Your task to perform on an android device: add a contact in the contacts app Image 0: 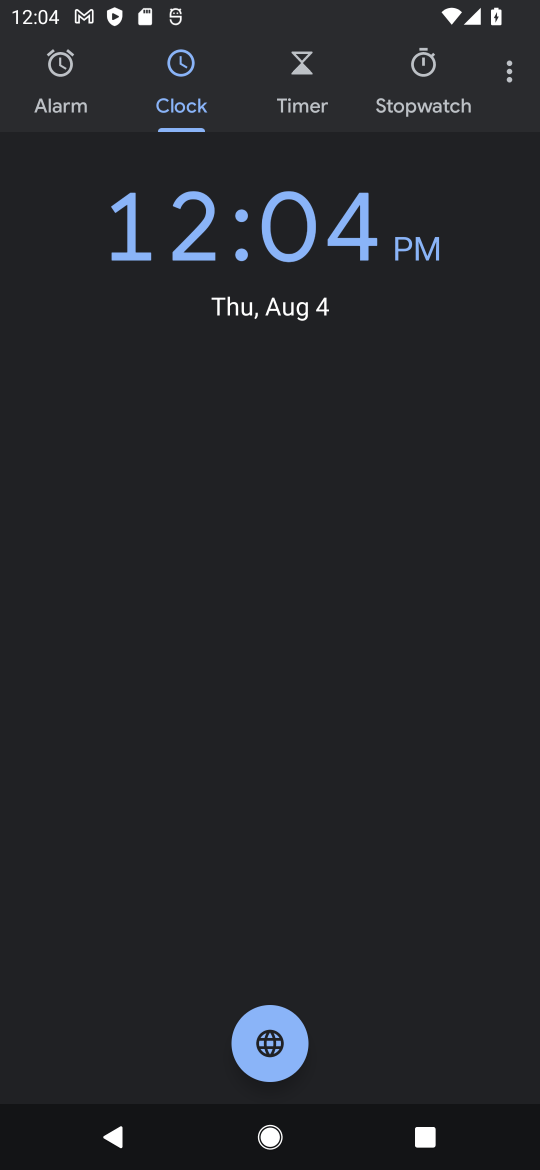
Step 0: press home button
Your task to perform on an android device: add a contact in the contacts app Image 1: 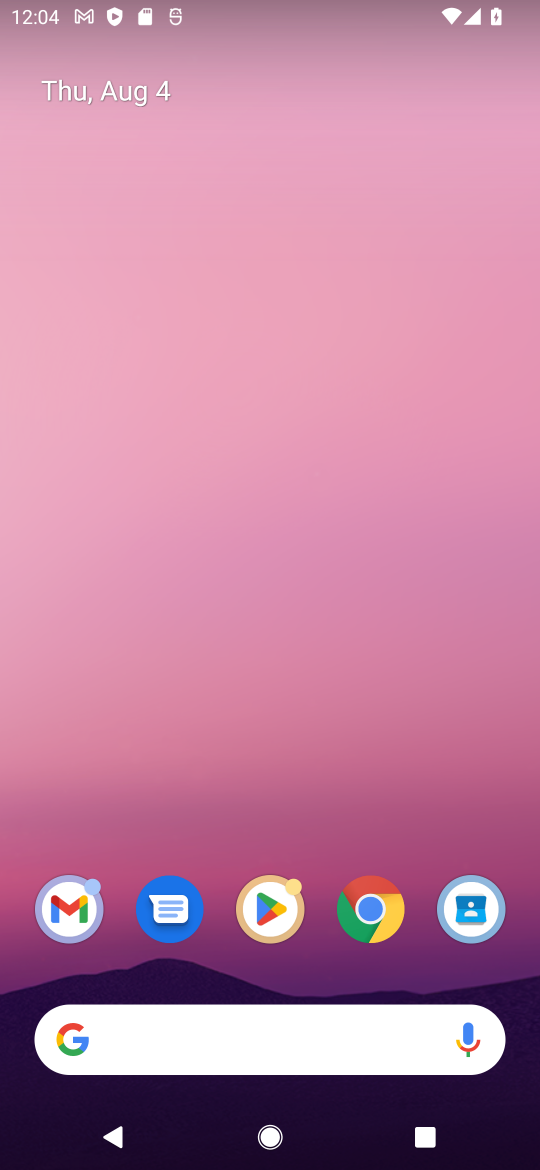
Step 1: click (488, 910)
Your task to perform on an android device: add a contact in the contacts app Image 2: 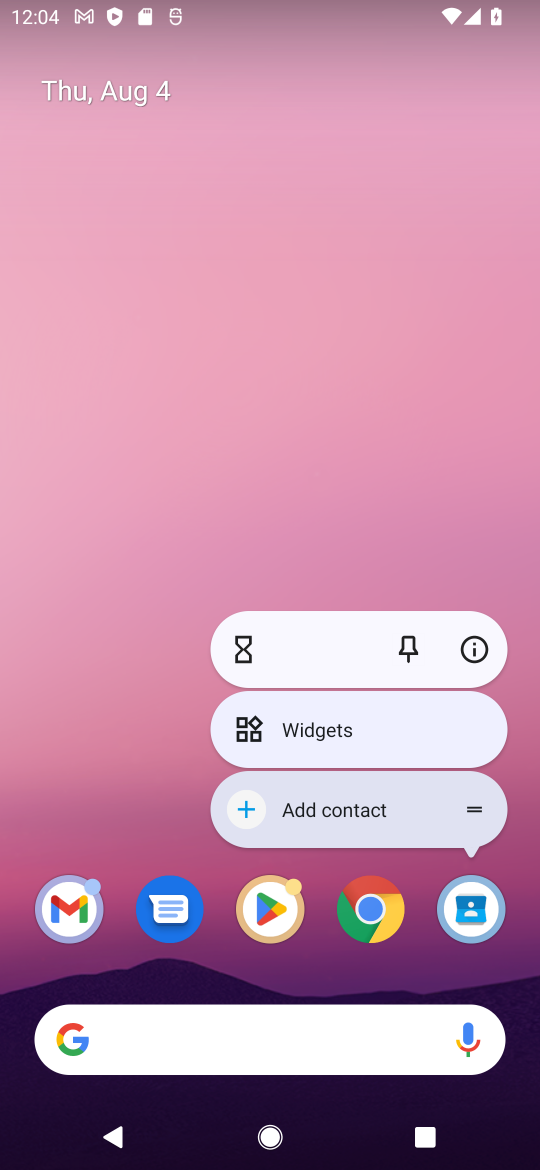
Step 2: click (488, 904)
Your task to perform on an android device: add a contact in the contacts app Image 3: 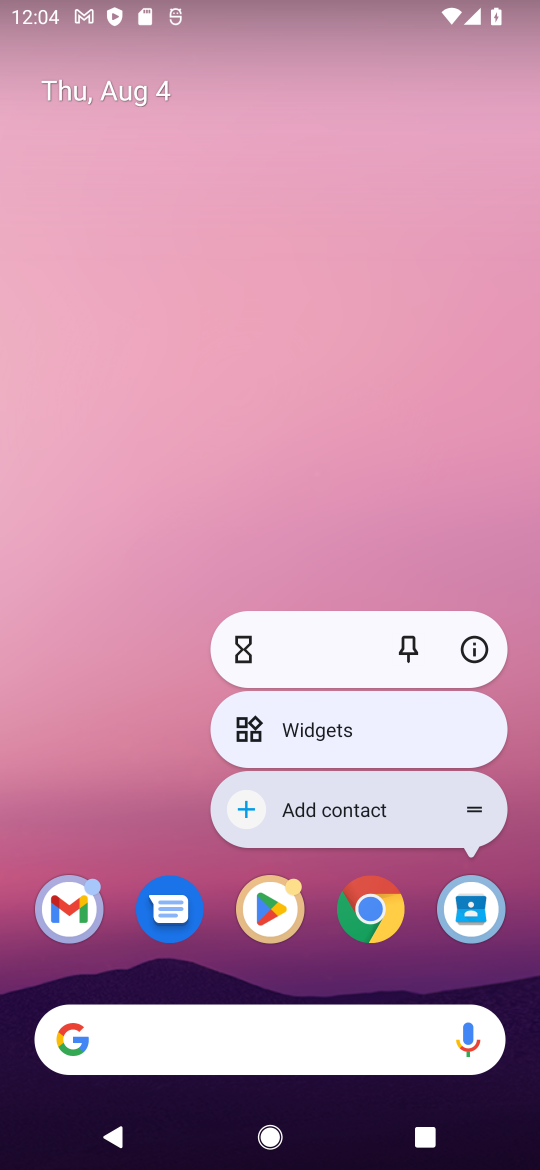
Step 3: click (488, 904)
Your task to perform on an android device: add a contact in the contacts app Image 4: 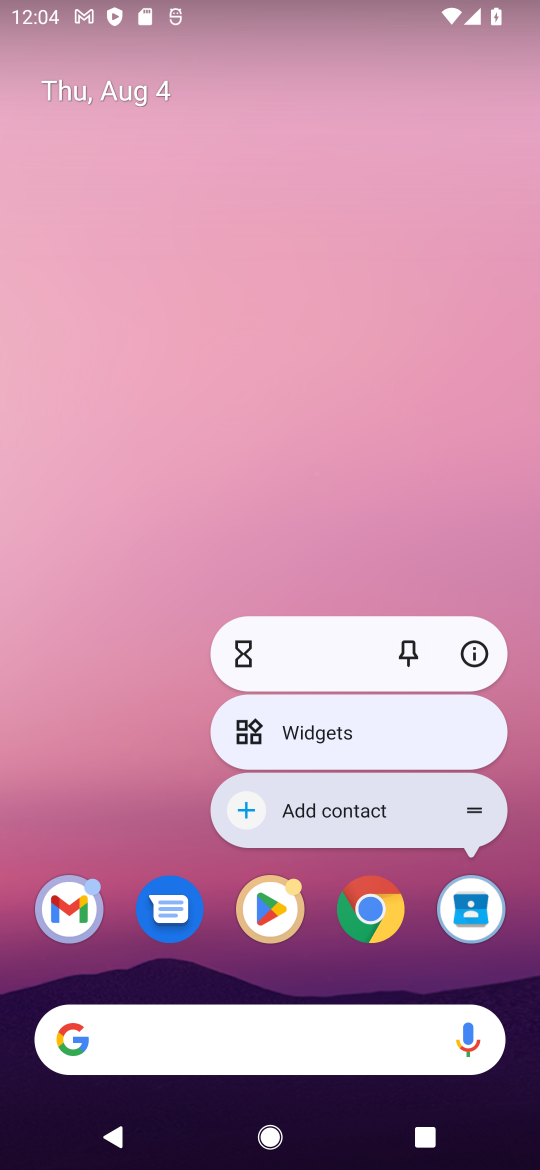
Step 4: click (488, 904)
Your task to perform on an android device: add a contact in the contacts app Image 5: 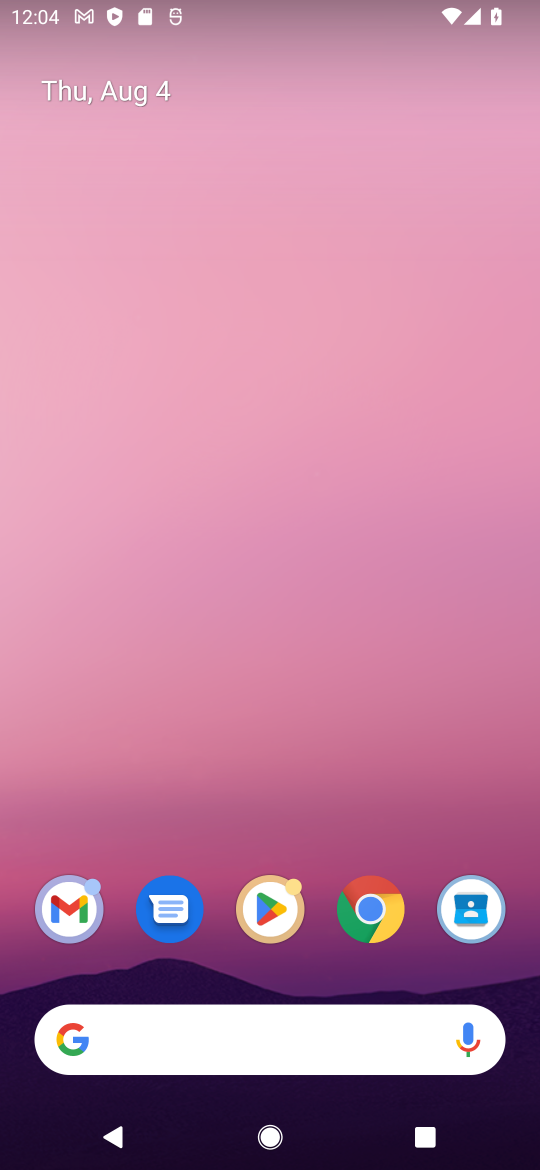
Step 5: click (488, 904)
Your task to perform on an android device: add a contact in the contacts app Image 6: 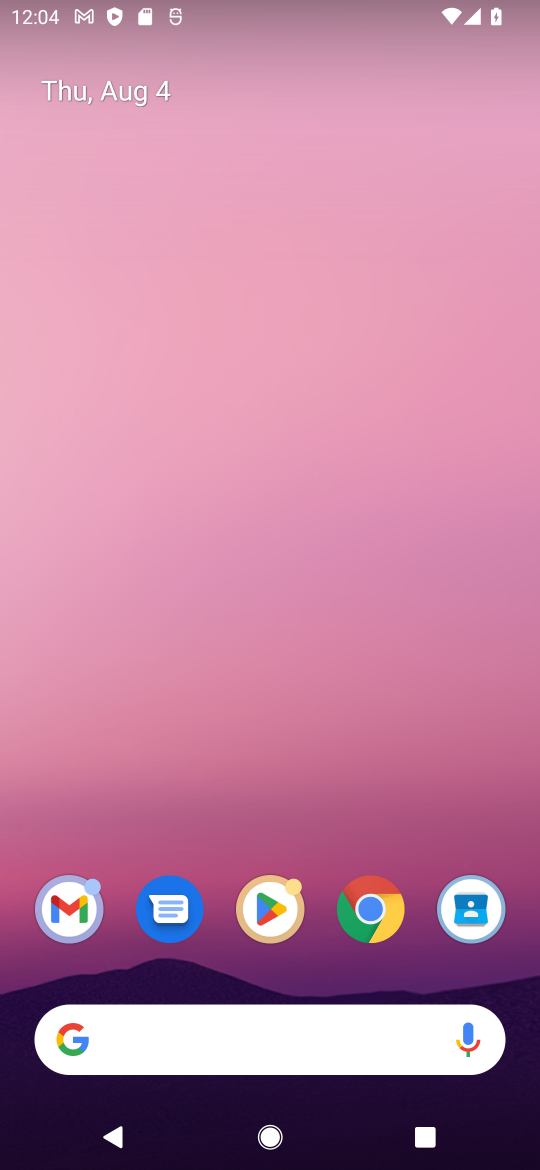
Step 6: click (488, 904)
Your task to perform on an android device: add a contact in the contacts app Image 7: 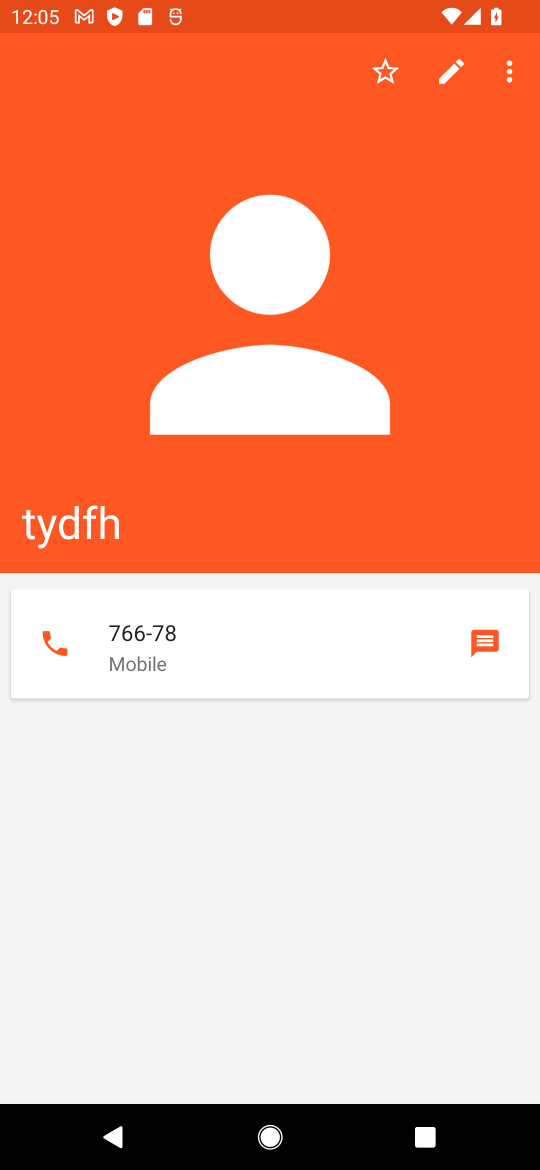
Step 7: click (88, 1122)
Your task to perform on an android device: add a contact in the contacts app Image 8: 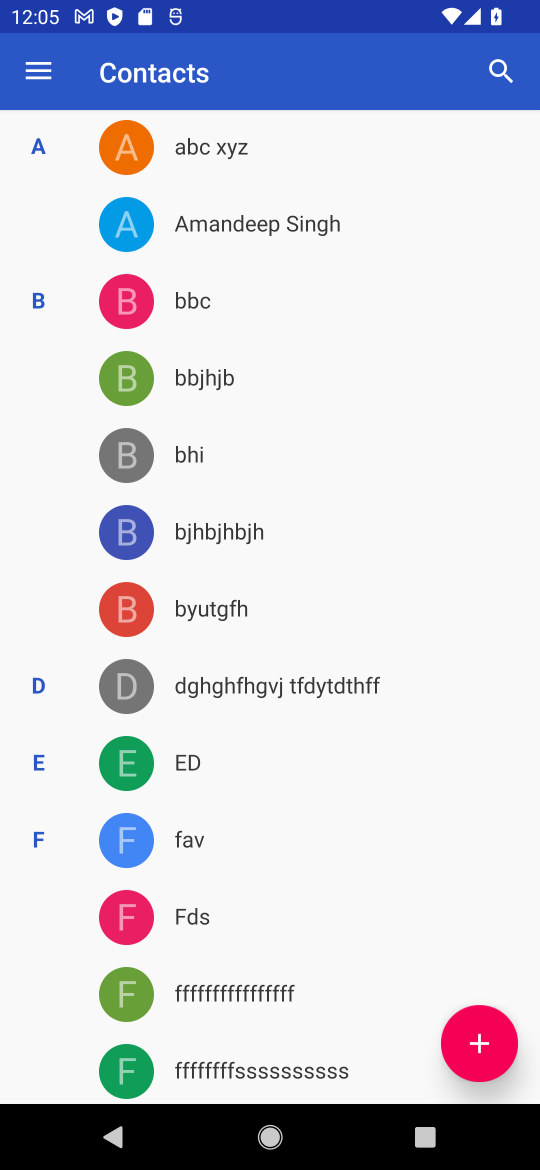
Step 8: click (472, 1044)
Your task to perform on an android device: add a contact in the contacts app Image 9: 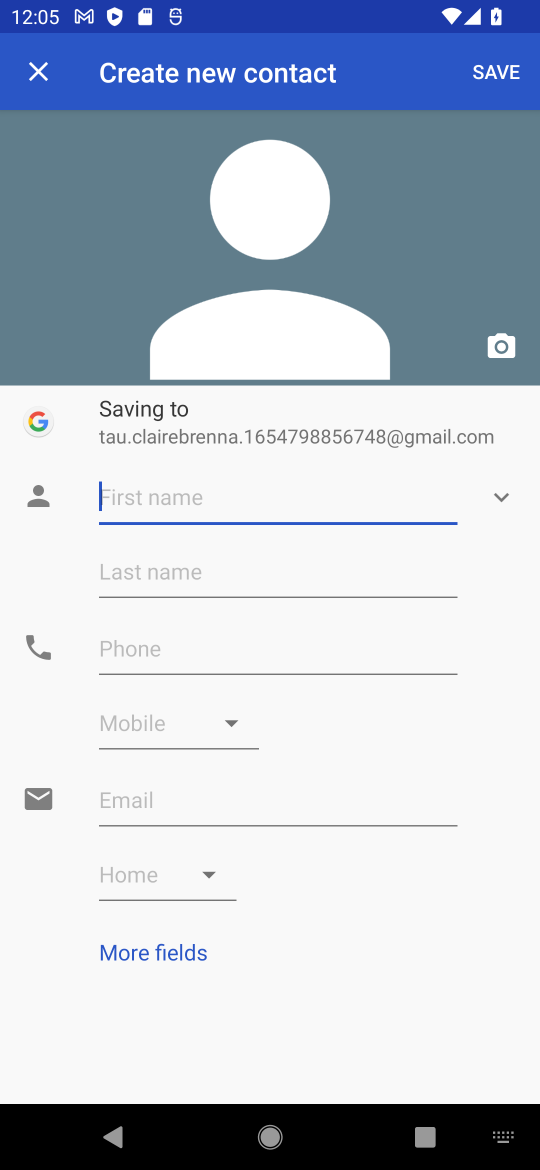
Step 9: type "hjkjkkk"
Your task to perform on an android device: add a contact in the contacts app Image 10: 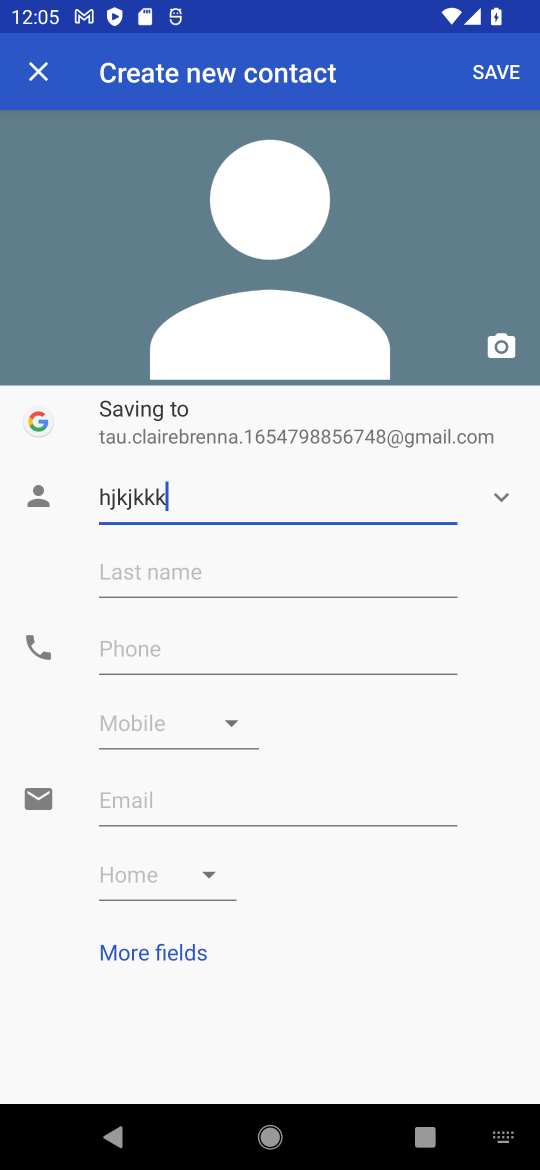
Step 10: click (408, 641)
Your task to perform on an android device: add a contact in the contacts app Image 11: 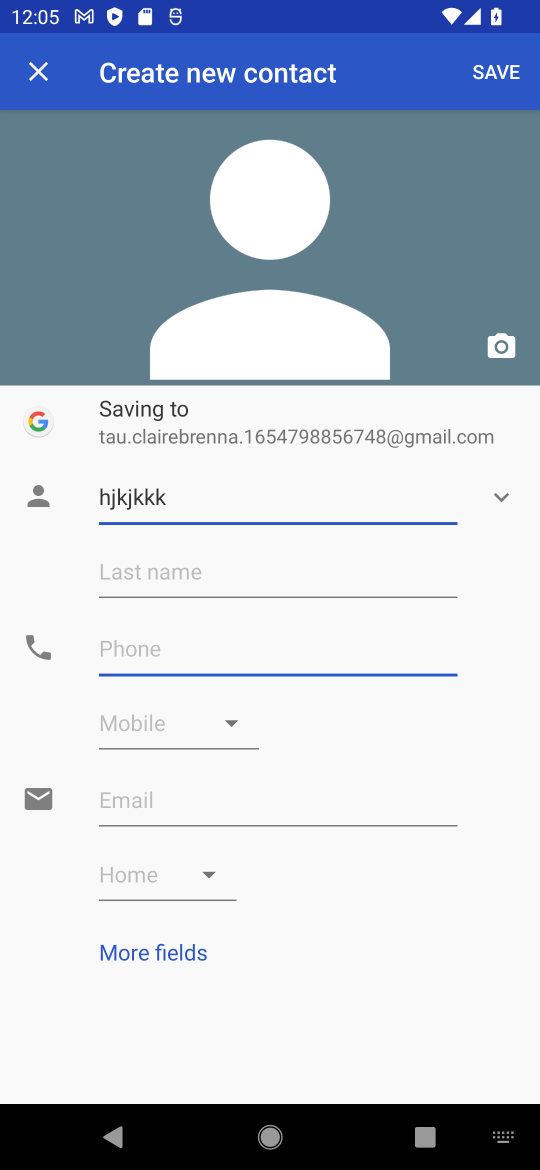
Step 11: click (408, 649)
Your task to perform on an android device: add a contact in the contacts app Image 12: 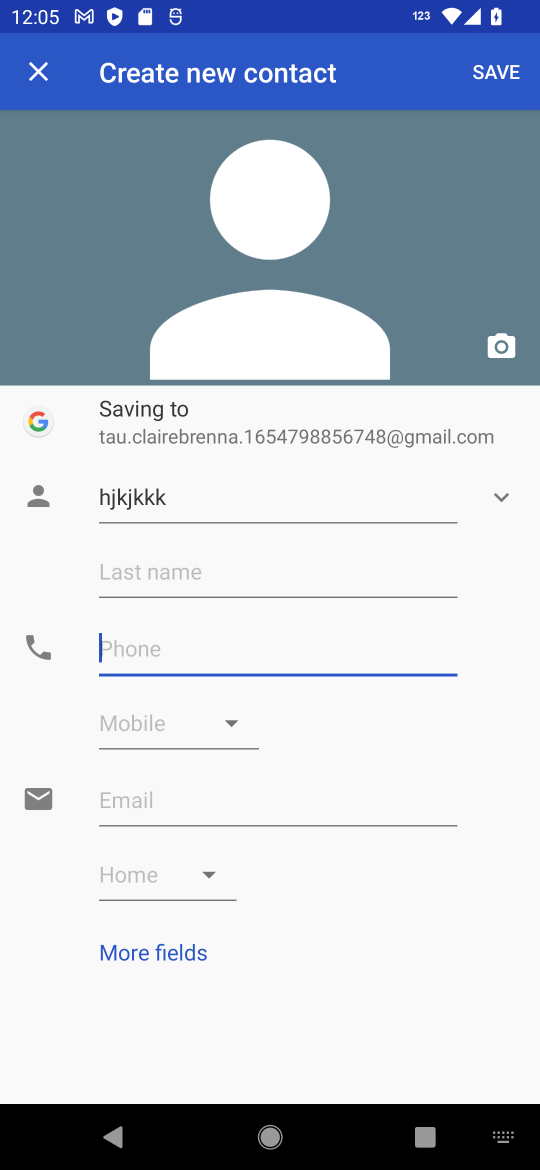
Step 12: type "78909"
Your task to perform on an android device: add a contact in the contacts app Image 13: 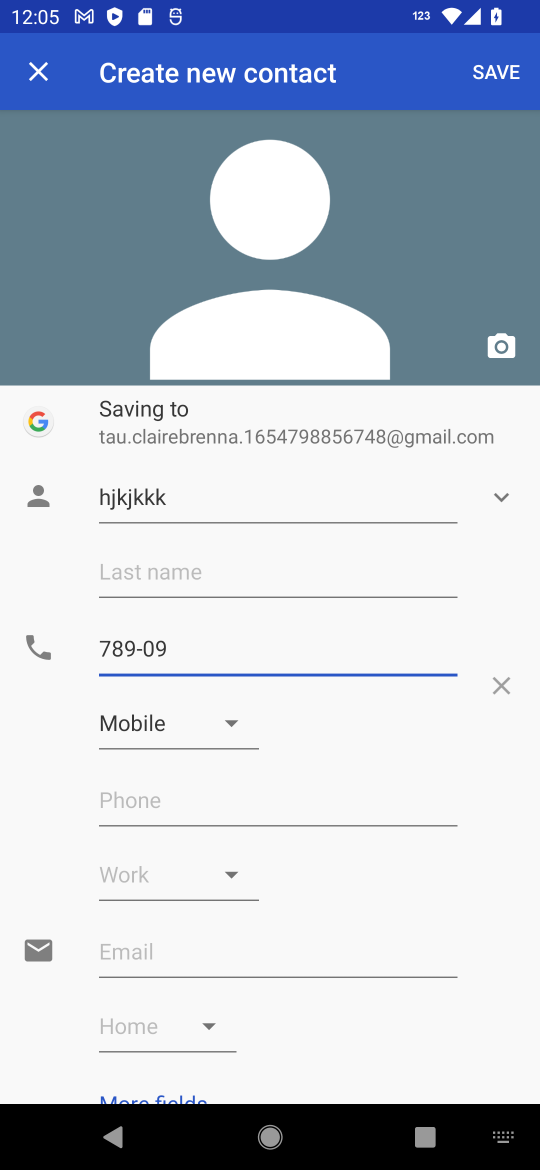
Step 13: click (491, 76)
Your task to perform on an android device: add a contact in the contacts app Image 14: 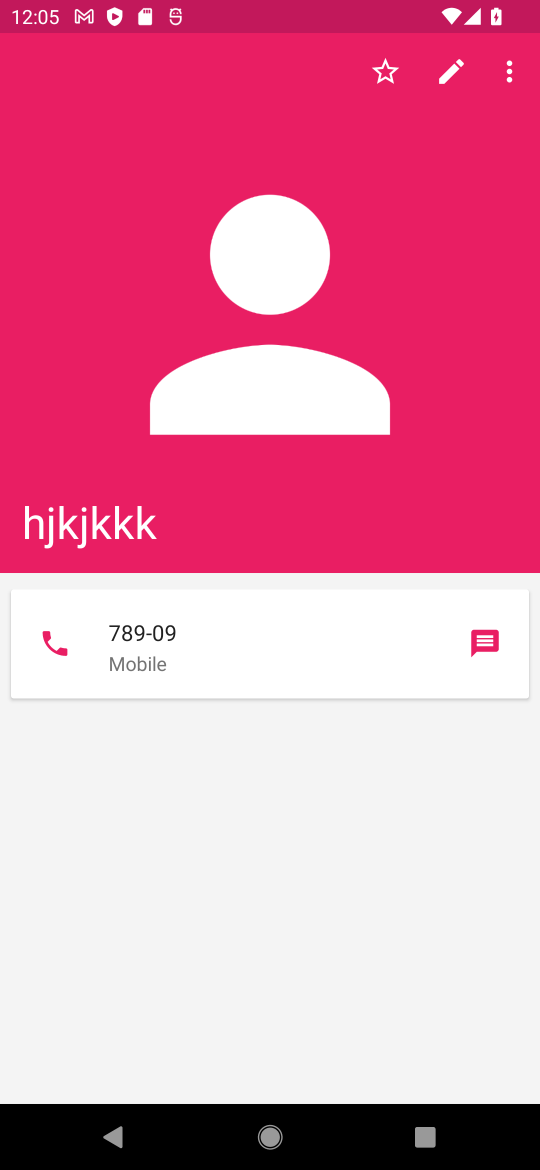
Step 14: task complete